Your task to perform on an android device: turn on bluetooth scan Image 0: 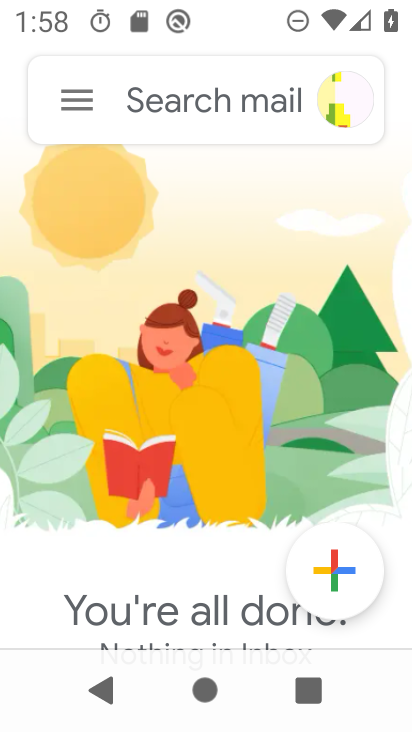
Step 0: press home button
Your task to perform on an android device: turn on bluetooth scan Image 1: 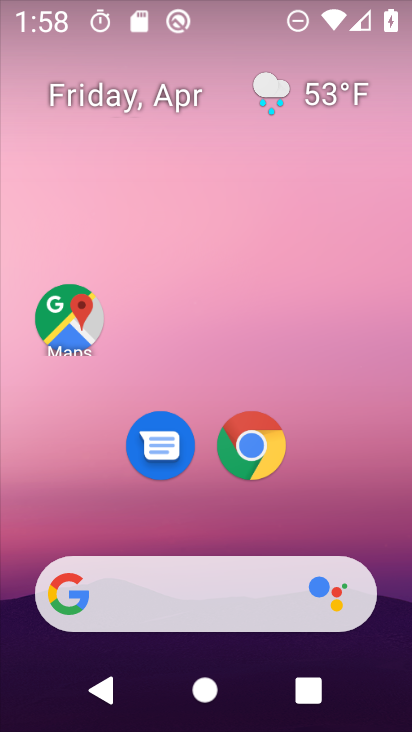
Step 1: drag from (338, 497) to (324, 129)
Your task to perform on an android device: turn on bluetooth scan Image 2: 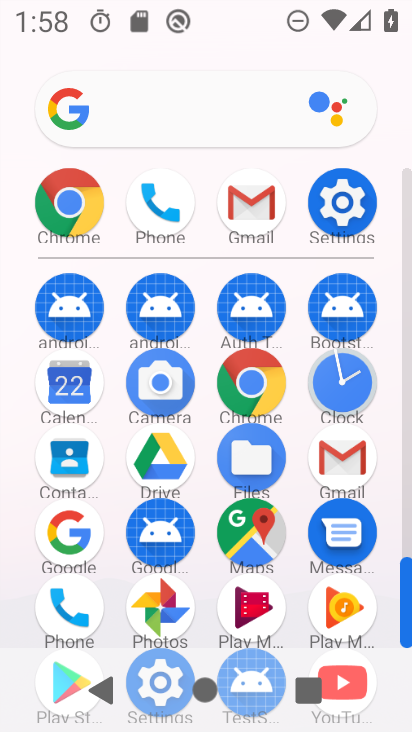
Step 2: click (359, 199)
Your task to perform on an android device: turn on bluetooth scan Image 3: 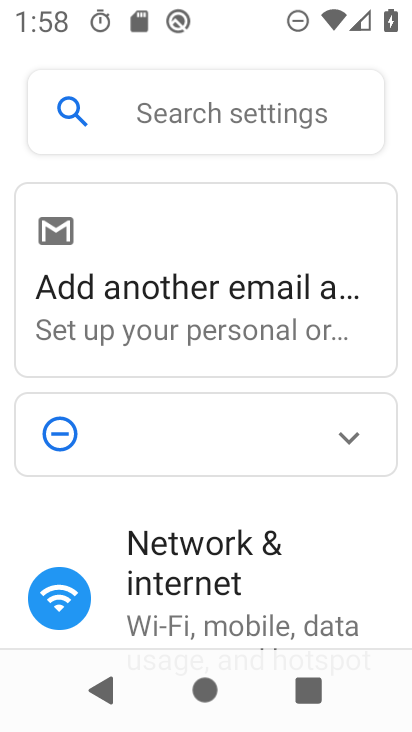
Step 3: drag from (324, 542) to (313, 279)
Your task to perform on an android device: turn on bluetooth scan Image 4: 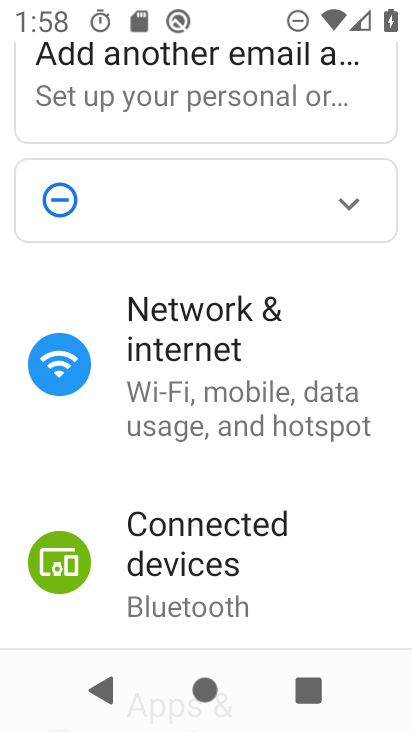
Step 4: drag from (318, 565) to (311, 321)
Your task to perform on an android device: turn on bluetooth scan Image 5: 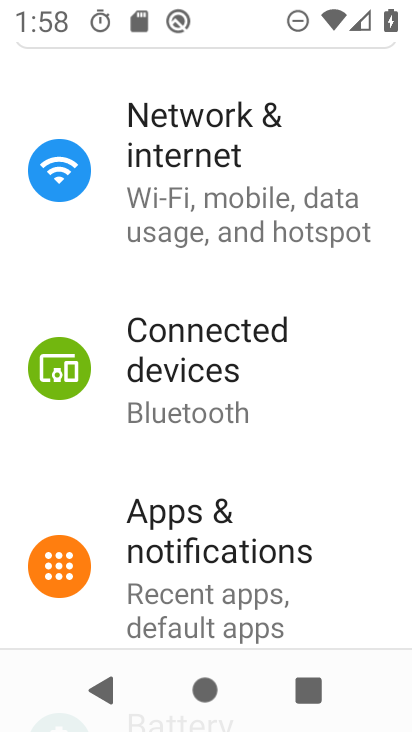
Step 5: drag from (336, 605) to (339, 381)
Your task to perform on an android device: turn on bluetooth scan Image 6: 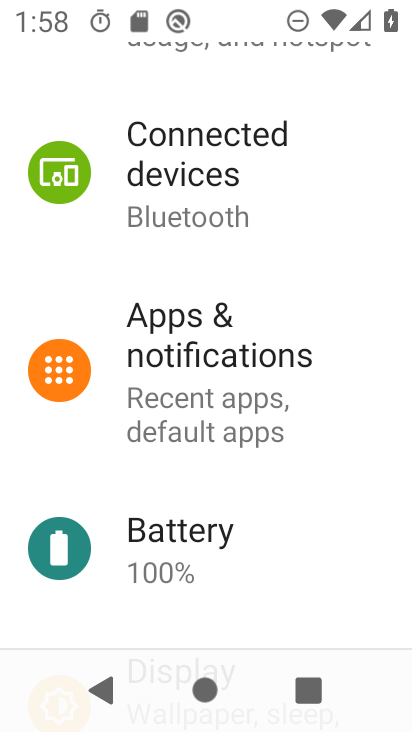
Step 6: drag from (326, 543) to (328, 381)
Your task to perform on an android device: turn on bluetooth scan Image 7: 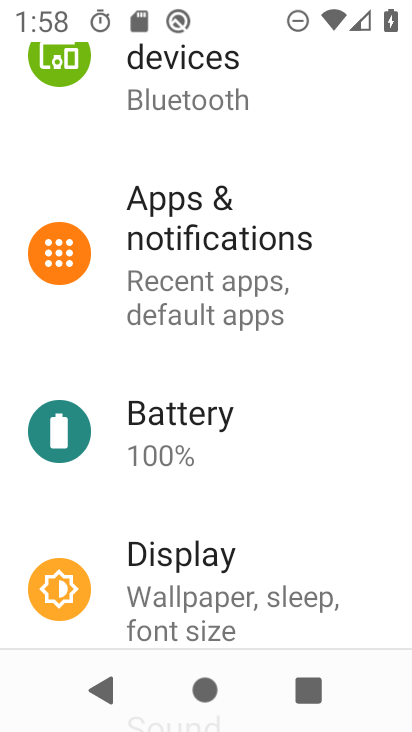
Step 7: drag from (364, 613) to (356, 390)
Your task to perform on an android device: turn on bluetooth scan Image 8: 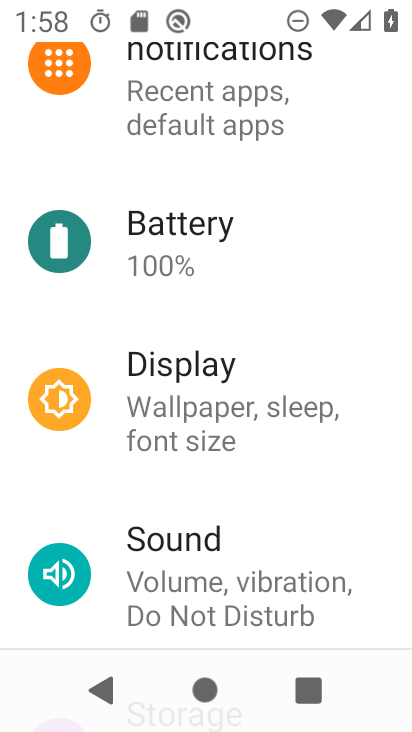
Step 8: drag from (367, 590) to (363, 420)
Your task to perform on an android device: turn on bluetooth scan Image 9: 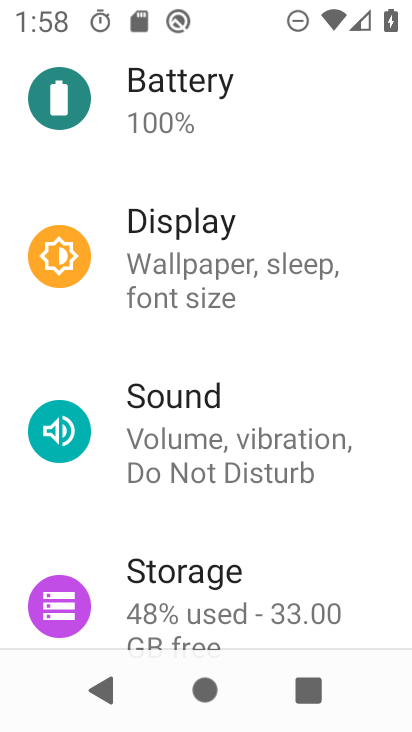
Step 9: drag from (349, 529) to (348, 312)
Your task to perform on an android device: turn on bluetooth scan Image 10: 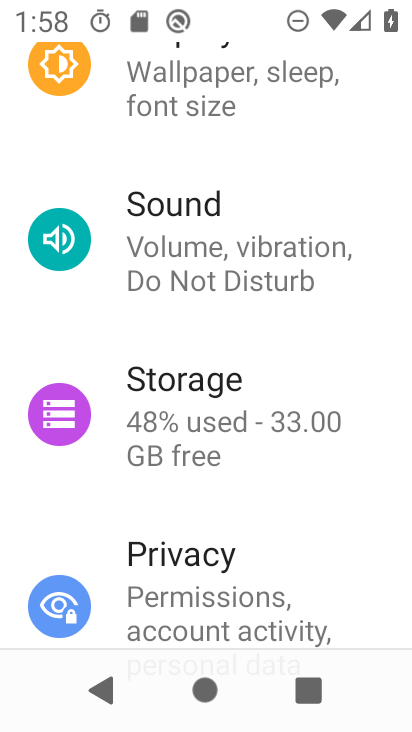
Step 10: drag from (349, 564) to (352, 358)
Your task to perform on an android device: turn on bluetooth scan Image 11: 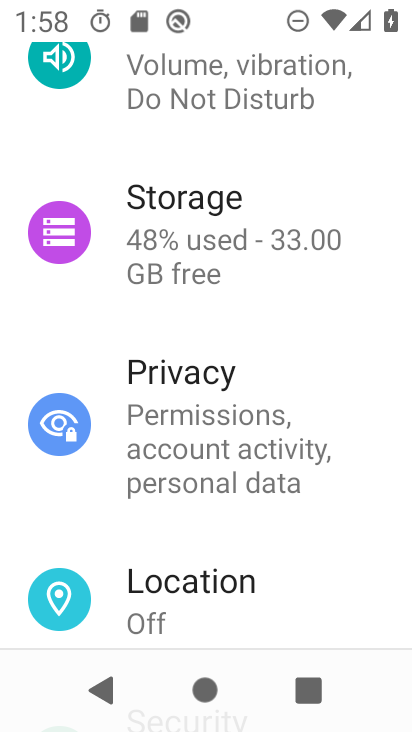
Step 11: drag from (346, 572) to (351, 309)
Your task to perform on an android device: turn on bluetooth scan Image 12: 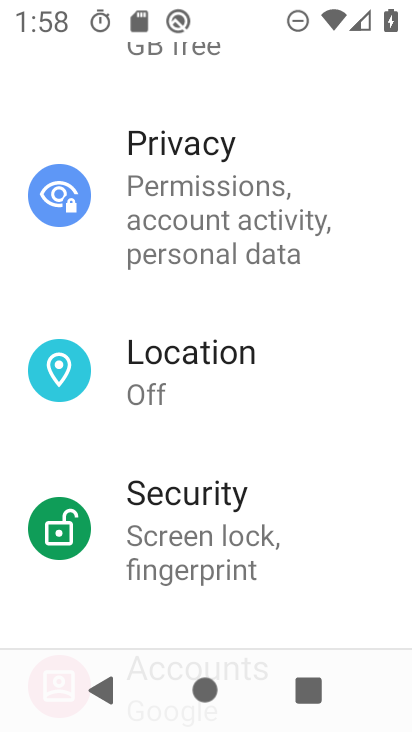
Step 12: click (196, 365)
Your task to perform on an android device: turn on bluetooth scan Image 13: 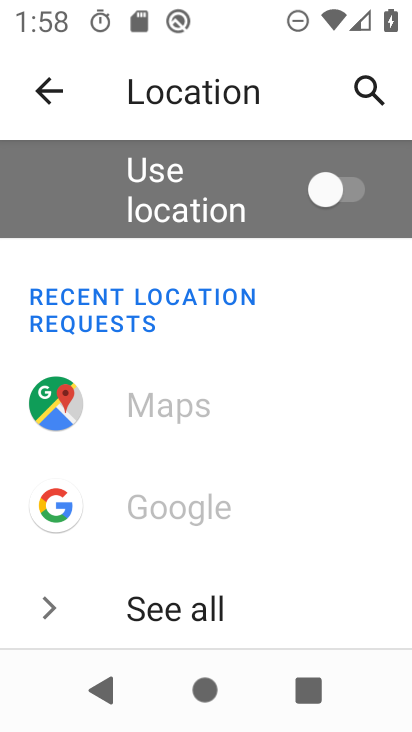
Step 13: drag from (305, 559) to (302, 291)
Your task to perform on an android device: turn on bluetooth scan Image 14: 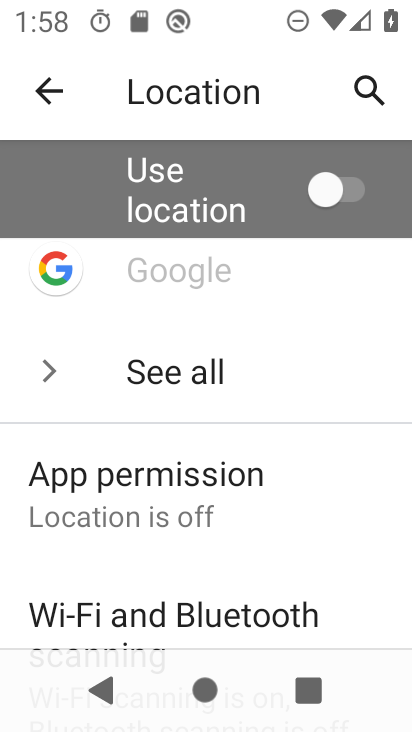
Step 14: drag from (341, 558) to (339, 308)
Your task to perform on an android device: turn on bluetooth scan Image 15: 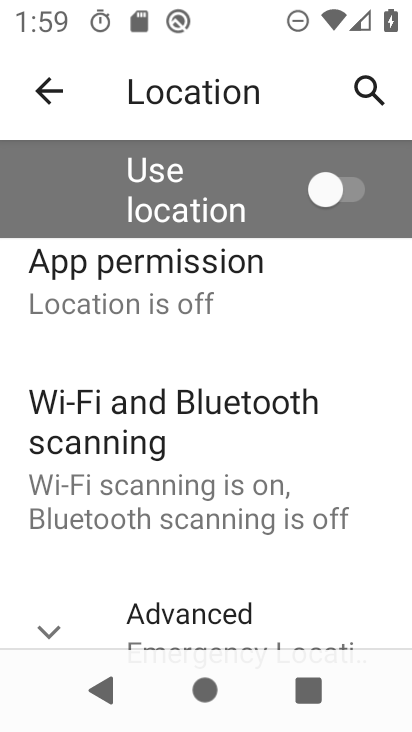
Step 15: drag from (371, 574) to (367, 405)
Your task to perform on an android device: turn on bluetooth scan Image 16: 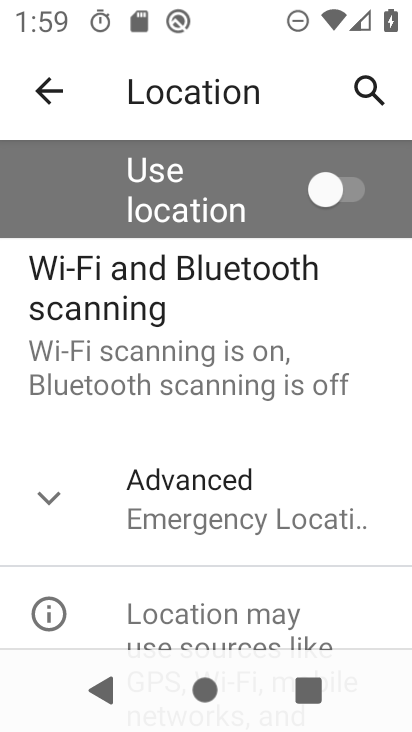
Step 16: click (192, 363)
Your task to perform on an android device: turn on bluetooth scan Image 17: 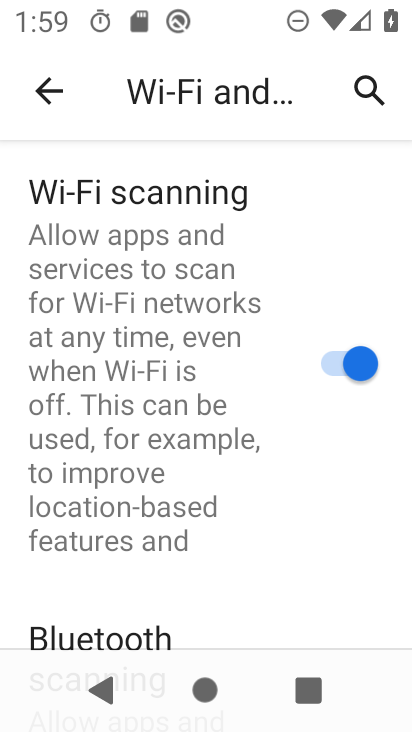
Step 17: drag from (301, 551) to (290, 238)
Your task to perform on an android device: turn on bluetooth scan Image 18: 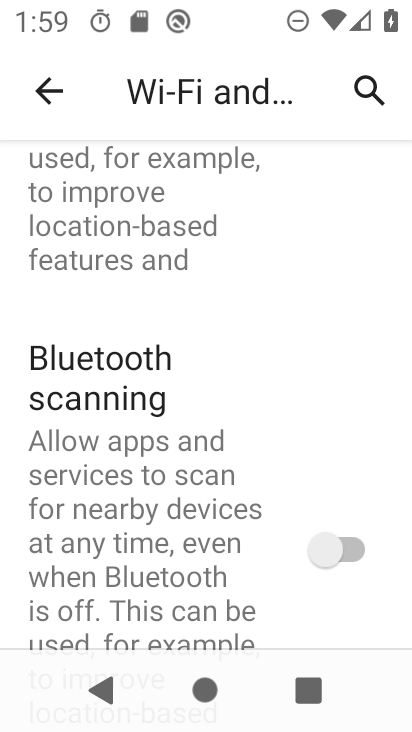
Step 18: drag from (271, 564) to (269, 325)
Your task to perform on an android device: turn on bluetooth scan Image 19: 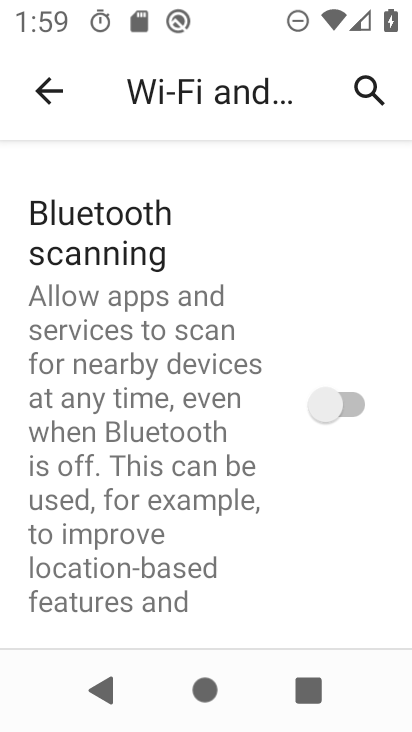
Step 19: click (330, 419)
Your task to perform on an android device: turn on bluetooth scan Image 20: 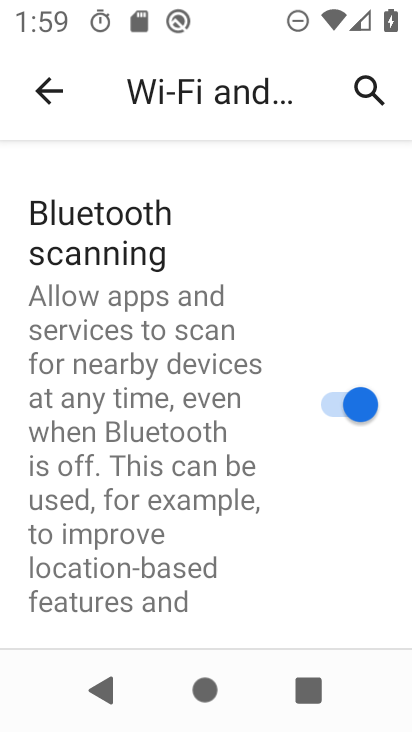
Step 20: task complete